Your task to perform on an android device: change the clock display to digital Image 0: 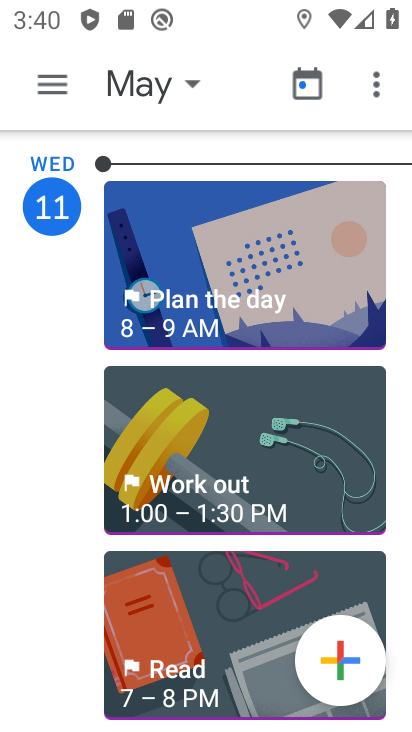
Step 0: press back button
Your task to perform on an android device: change the clock display to digital Image 1: 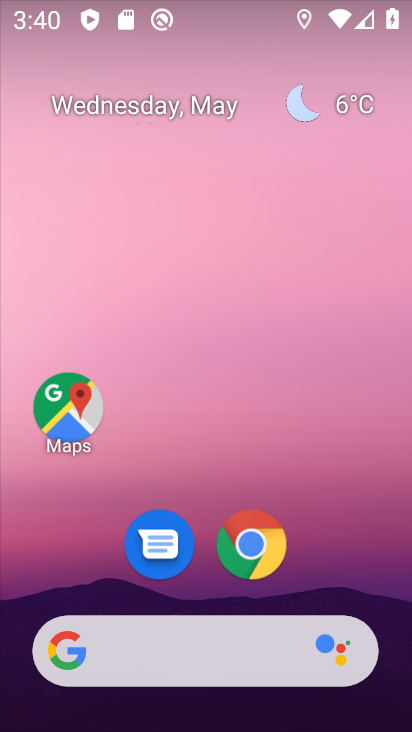
Step 1: drag from (32, 625) to (352, 125)
Your task to perform on an android device: change the clock display to digital Image 2: 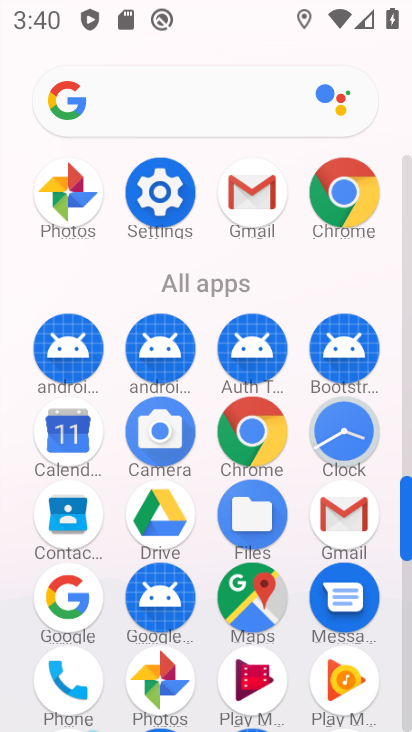
Step 2: click (344, 431)
Your task to perform on an android device: change the clock display to digital Image 3: 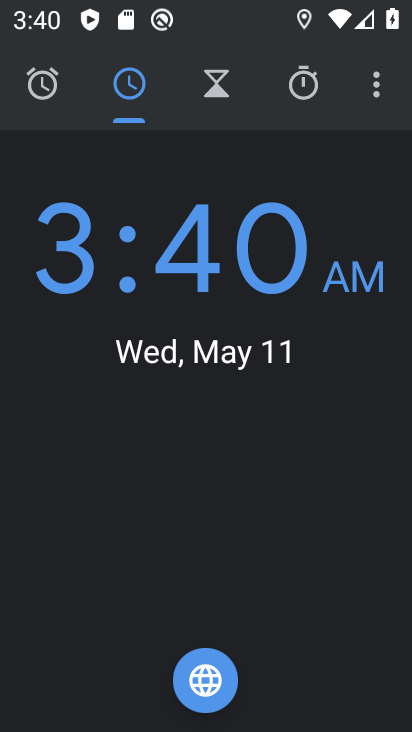
Step 3: click (368, 79)
Your task to perform on an android device: change the clock display to digital Image 4: 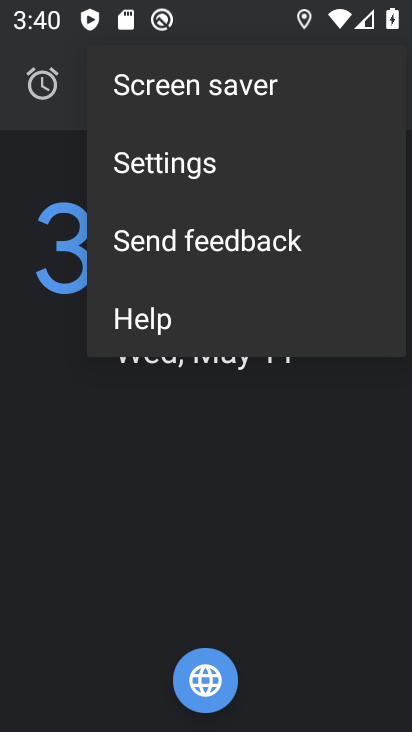
Step 4: click (239, 167)
Your task to perform on an android device: change the clock display to digital Image 5: 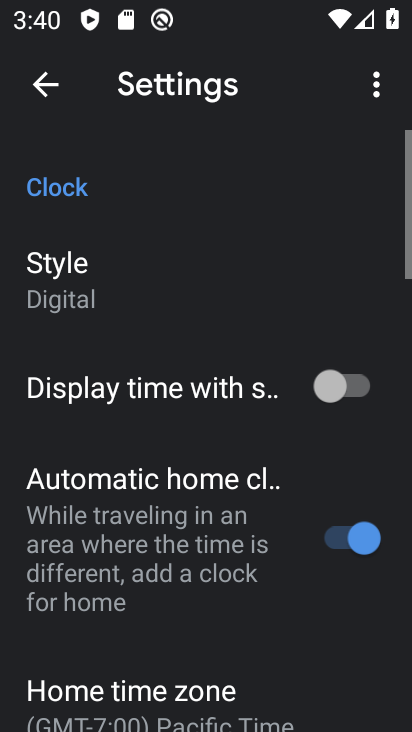
Step 5: click (105, 310)
Your task to perform on an android device: change the clock display to digital Image 6: 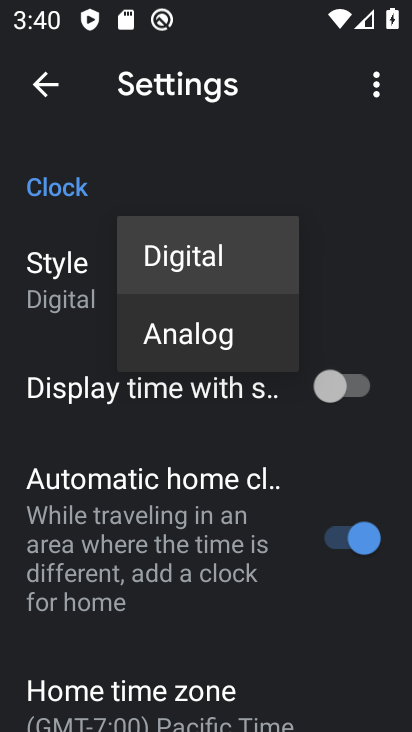
Step 6: click (129, 280)
Your task to perform on an android device: change the clock display to digital Image 7: 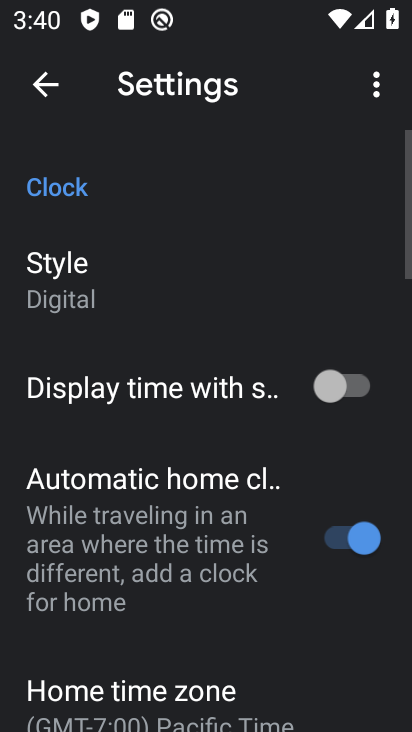
Step 7: task complete